Your task to perform on an android device: Check the news Image 0: 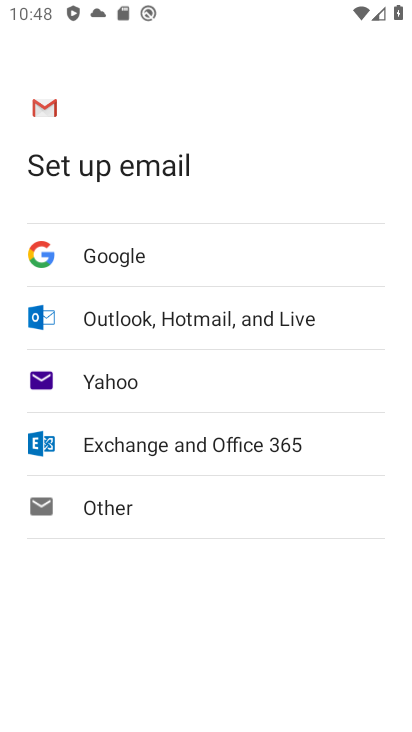
Step 0: press home button
Your task to perform on an android device: Check the news Image 1: 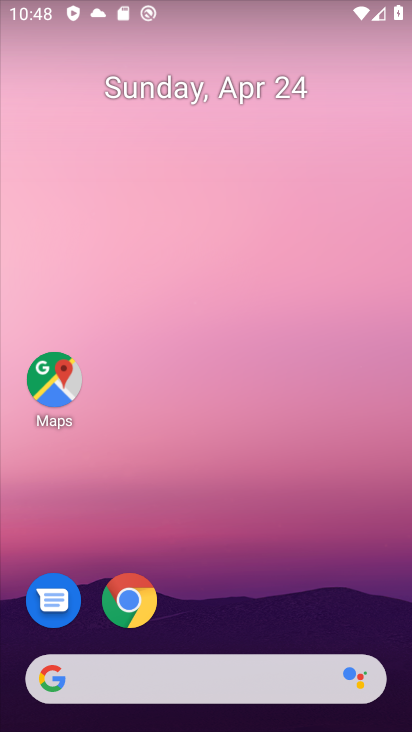
Step 1: drag from (17, 240) to (411, 247)
Your task to perform on an android device: Check the news Image 2: 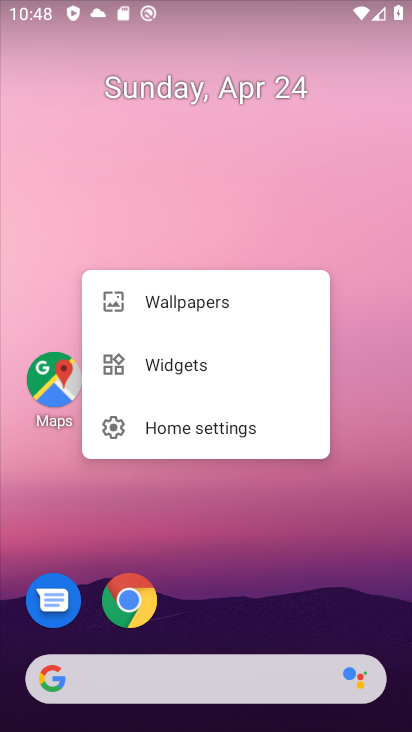
Step 2: click (202, 190)
Your task to perform on an android device: Check the news Image 3: 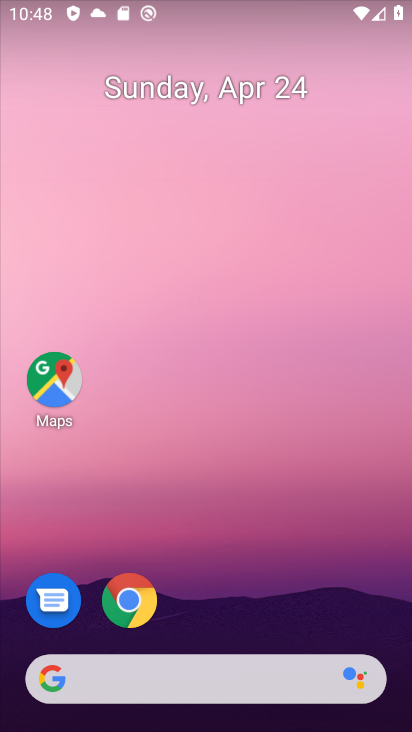
Step 3: task complete